Your task to perform on an android device: Go to location settings Image 0: 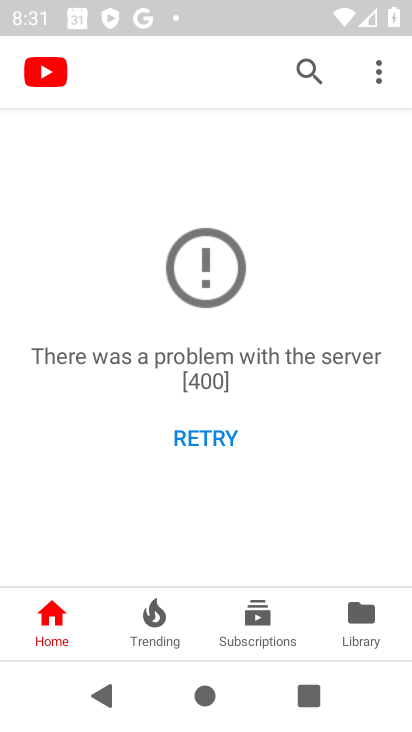
Step 0: press home button
Your task to perform on an android device: Go to location settings Image 1: 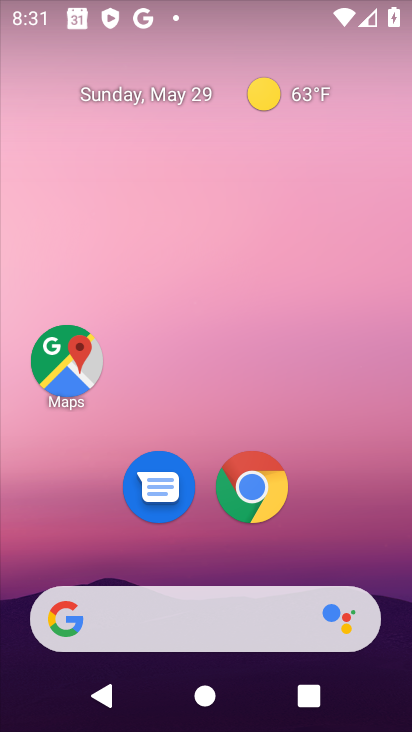
Step 1: drag from (317, 552) to (274, 120)
Your task to perform on an android device: Go to location settings Image 2: 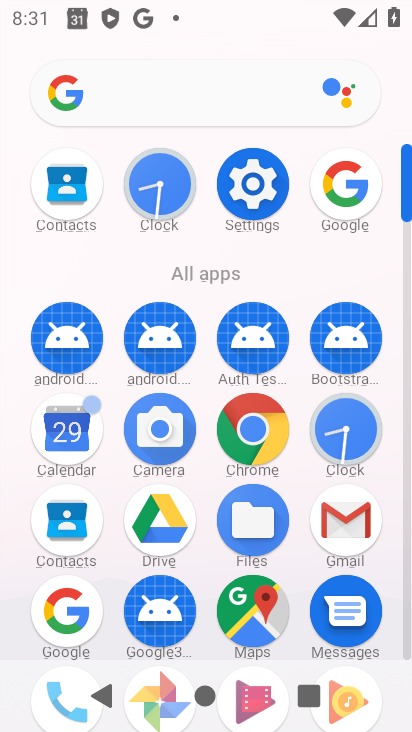
Step 2: click (255, 187)
Your task to perform on an android device: Go to location settings Image 3: 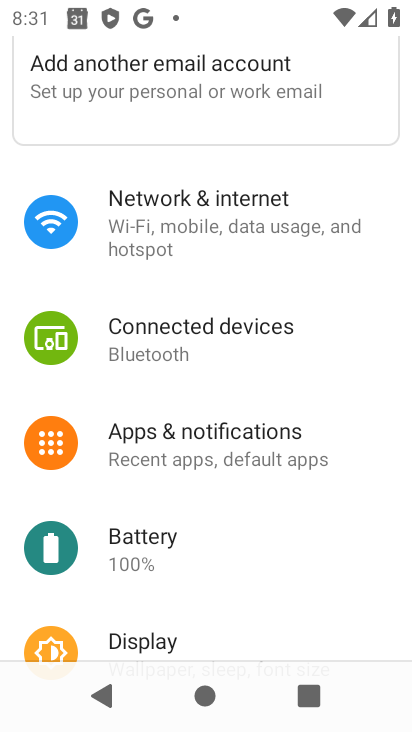
Step 3: drag from (179, 399) to (215, 306)
Your task to perform on an android device: Go to location settings Image 4: 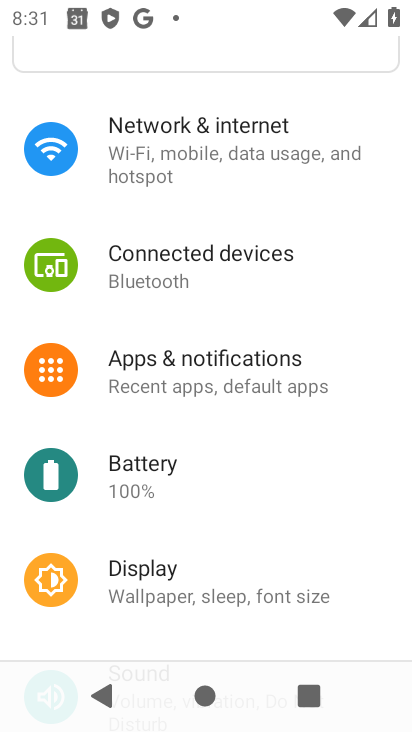
Step 4: drag from (208, 529) to (173, 330)
Your task to perform on an android device: Go to location settings Image 5: 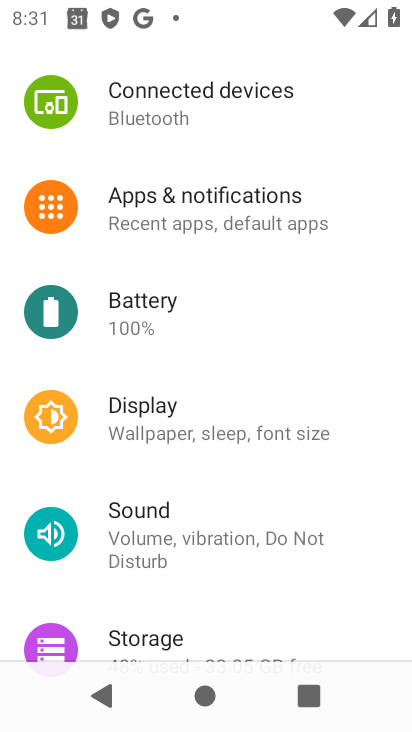
Step 5: drag from (205, 494) to (190, 394)
Your task to perform on an android device: Go to location settings Image 6: 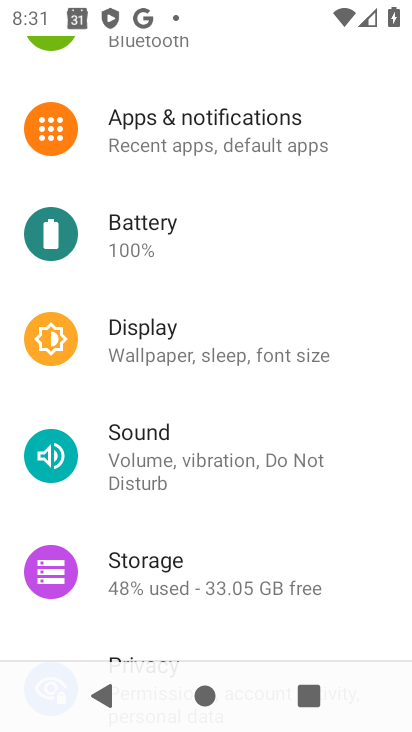
Step 6: drag from (197, 520) to (196, 419)
Your task to perform on an android device: Go to location settings Image 7: 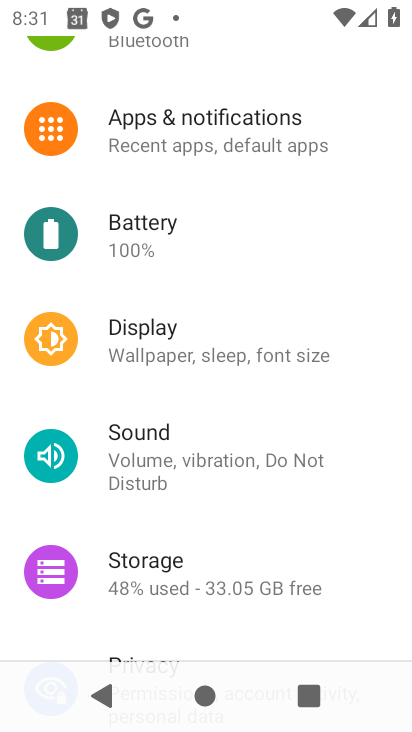
Step 7: drag from (187, 612) to (197, 462)
Your task to perform on an android device: Go to location settings Image 8: 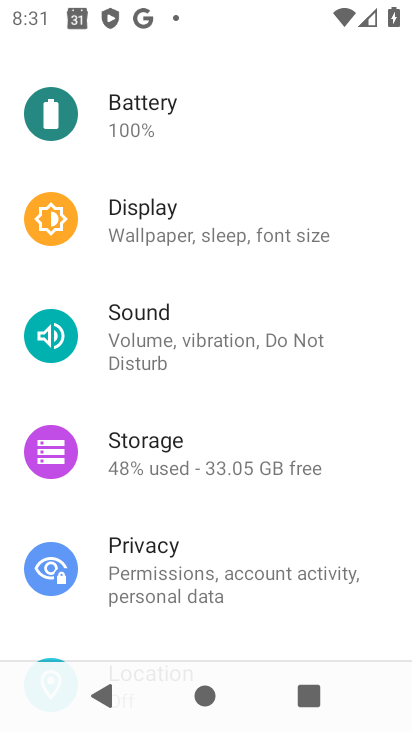
Step 8: drag from (188, 628) to (194, 456)
Your task to perform on an android device: Go to location settings Image 9: 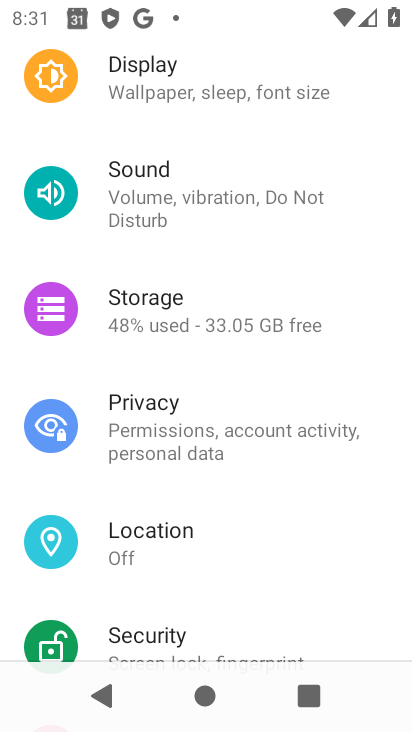
Step 9: click (163, 533)
Your task to perform on an android device: Go to location settings Image 10: 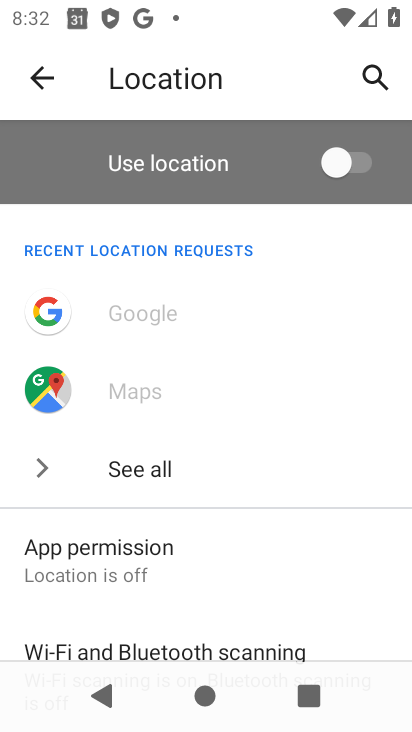
Step 10: task complete